Your task to perform on an android device: open wifi settings Image 0: 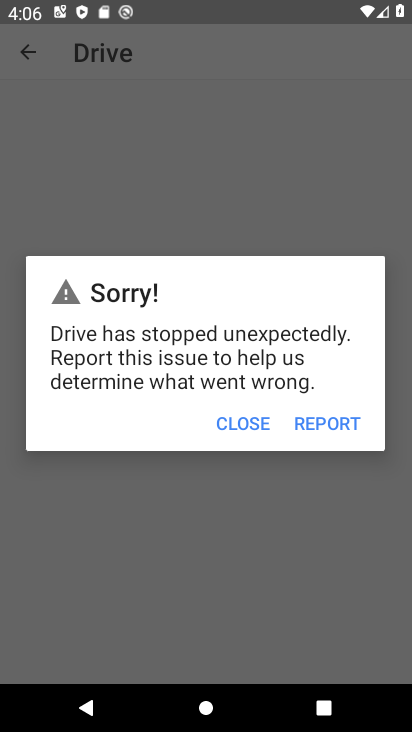
Step 0: press back button
Your task to perform on an android device: open wifi settings Image 1: 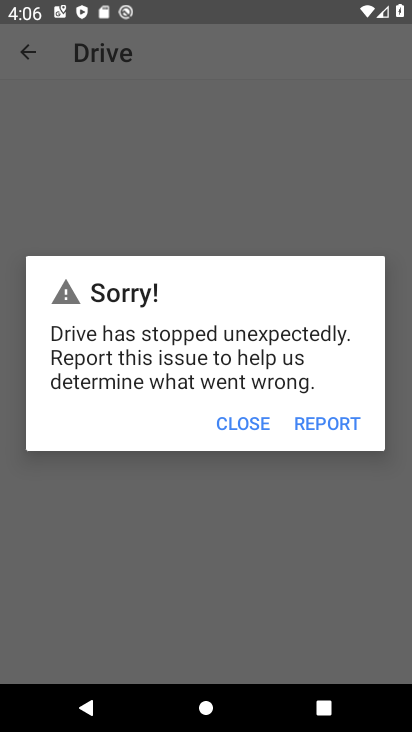
Step 1: press home button
Your task to perform on an android device: open wifi settings Image 2: 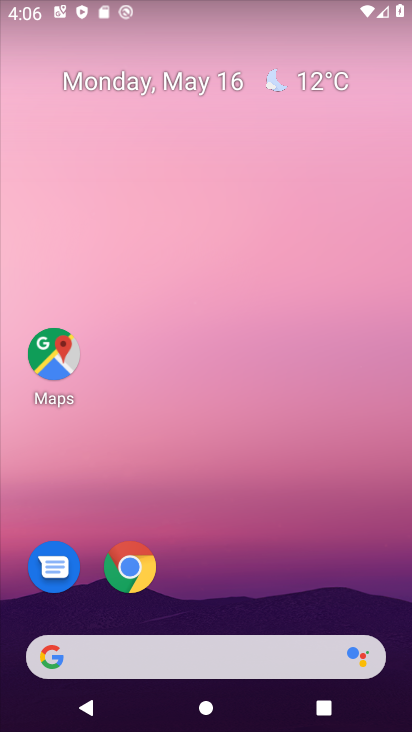
Step 2: drag from (207, 567) to (240, 2)
Your task to perform on an android device: open wifi settings Image 3: 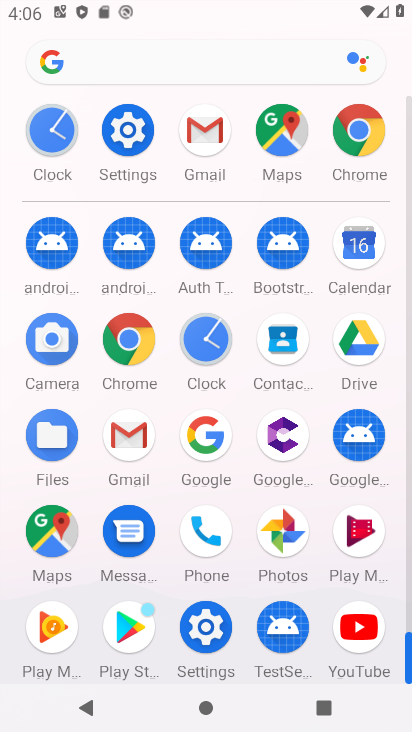
Step 3: click (129, 123)
Your task to perform on an android device: open wifi settings Image 4: 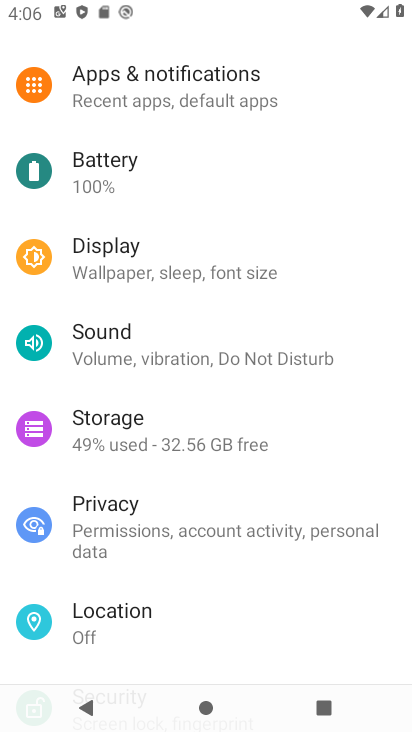
Step 4: drag from (213, 205) to (213, 589)
Your task to perform on an android device: open wifi settings Image 5: 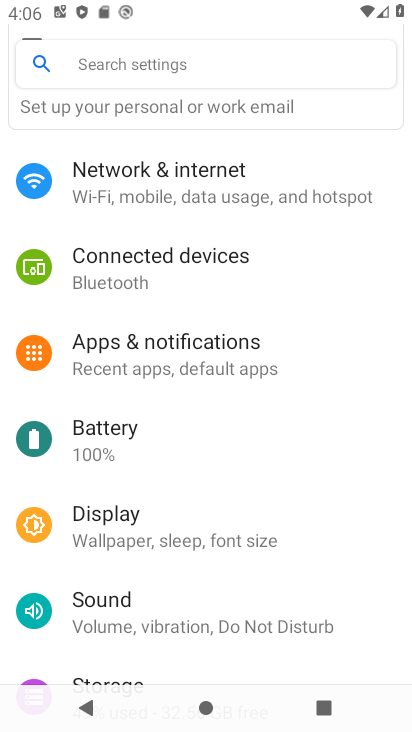
Step 5: click (197, 176)
Your task to perform on an android device: open wifi settings Image 6: 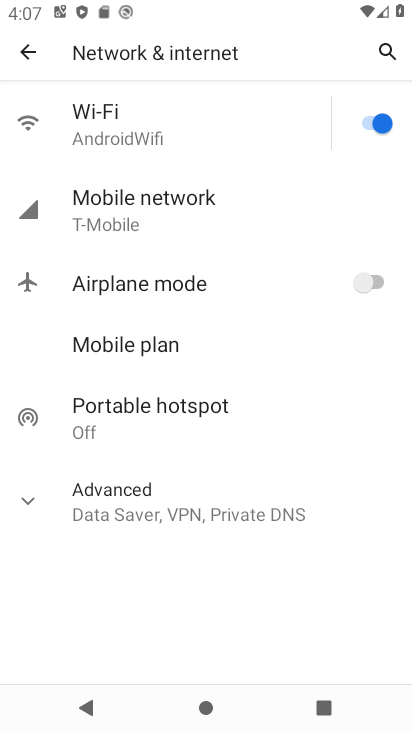
Step 6: click (21, 505)
Your task to perform on an android device: open wifi settings Image 7: 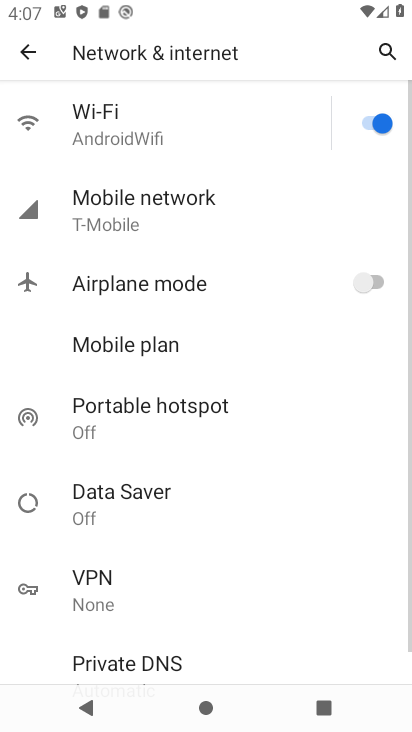
Step 7: task complete